Your task to perform on an android device: check data usage Image 0: 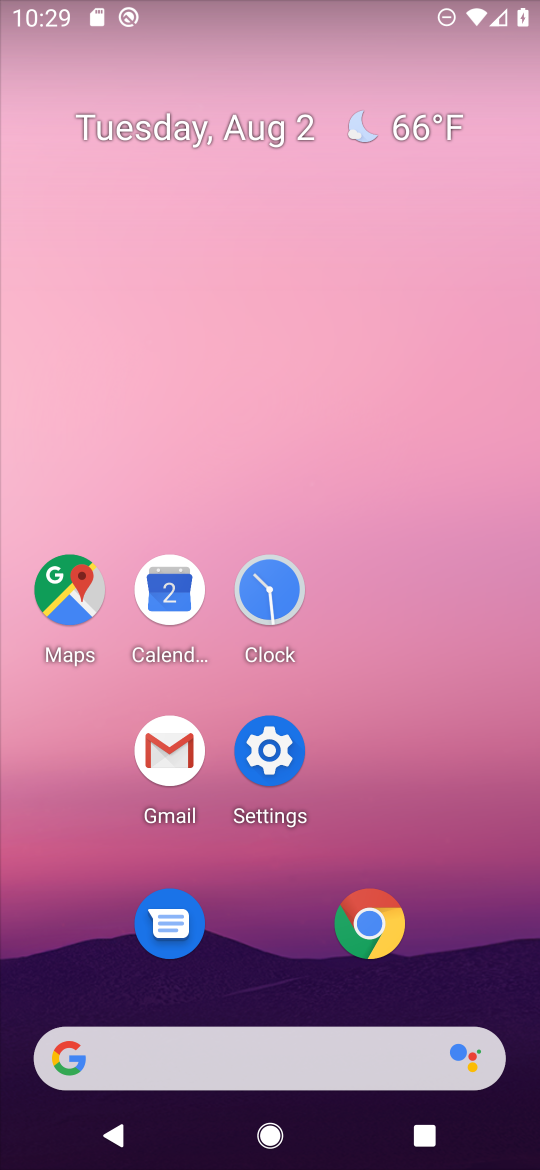
Step 0: click (256, 757)
Your task to perform on an android device: check data usage Image 1: 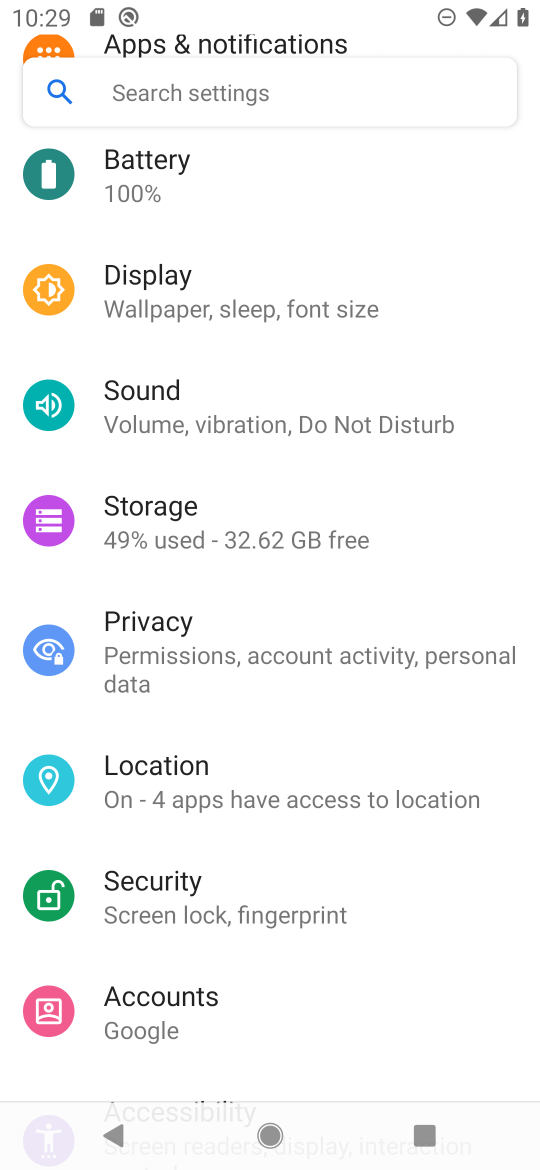
Step 1: drag from (452, 254) to (503, 795)
Your task to perform on an android device: check data usage Image 2: 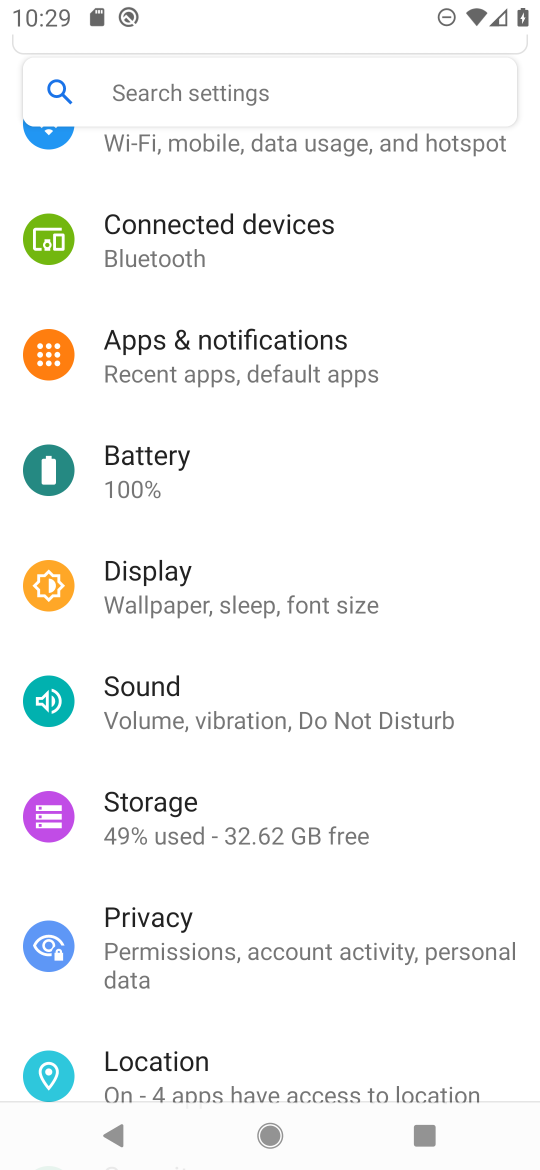
Step 2: drag from (408, 190) to (405, 935)
Your task to perform on an android device: check data usage Image 3: 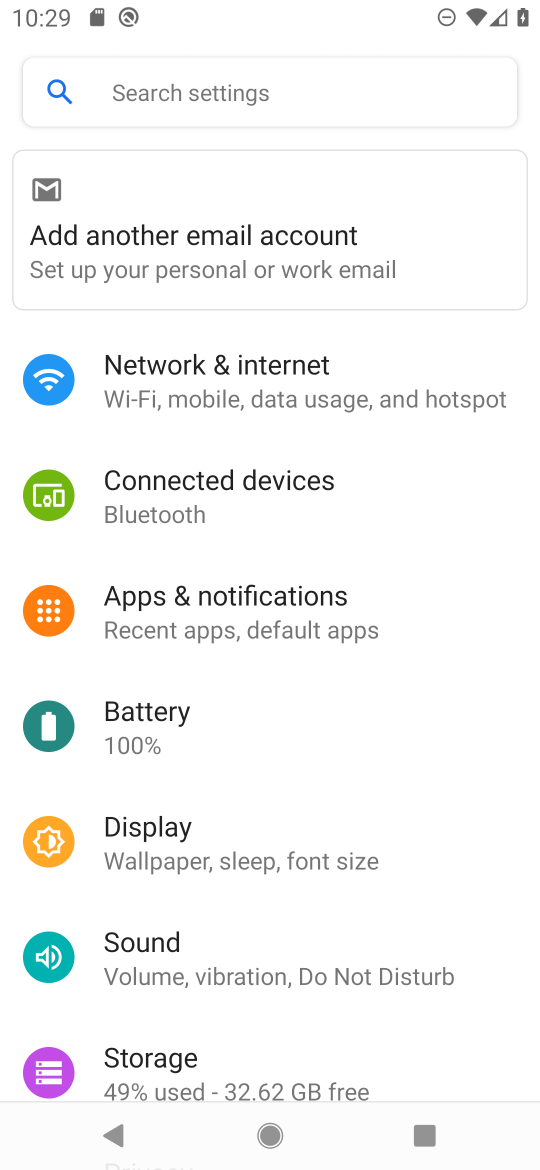
Step 3: click (210, 375)
Your task to perform on an android device: check data usage Image 4: 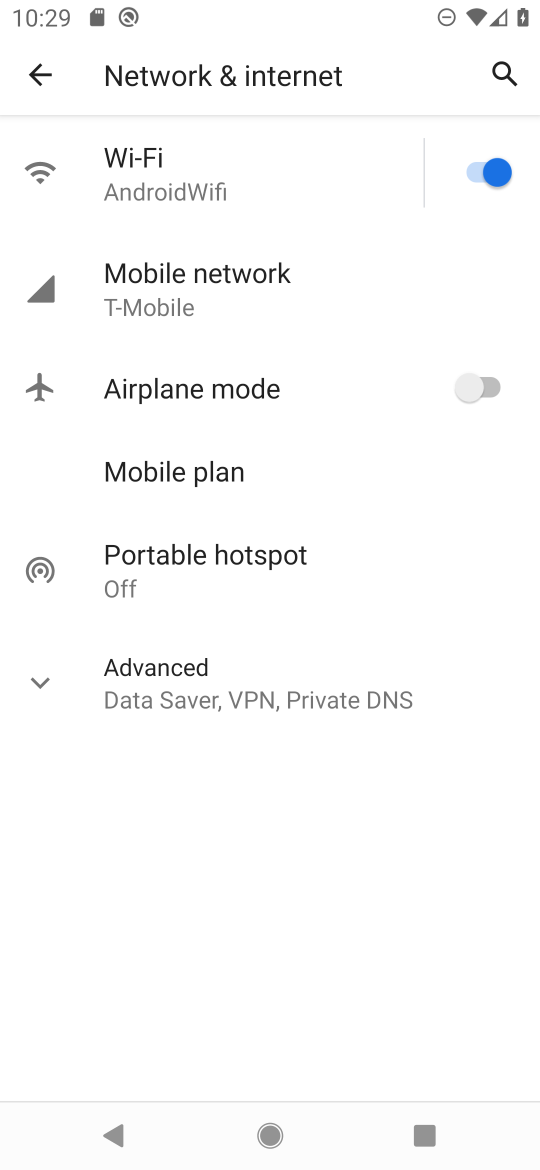
Step 4: click (46, 679)
Your task to perform on an android device: check data usage Image 5: 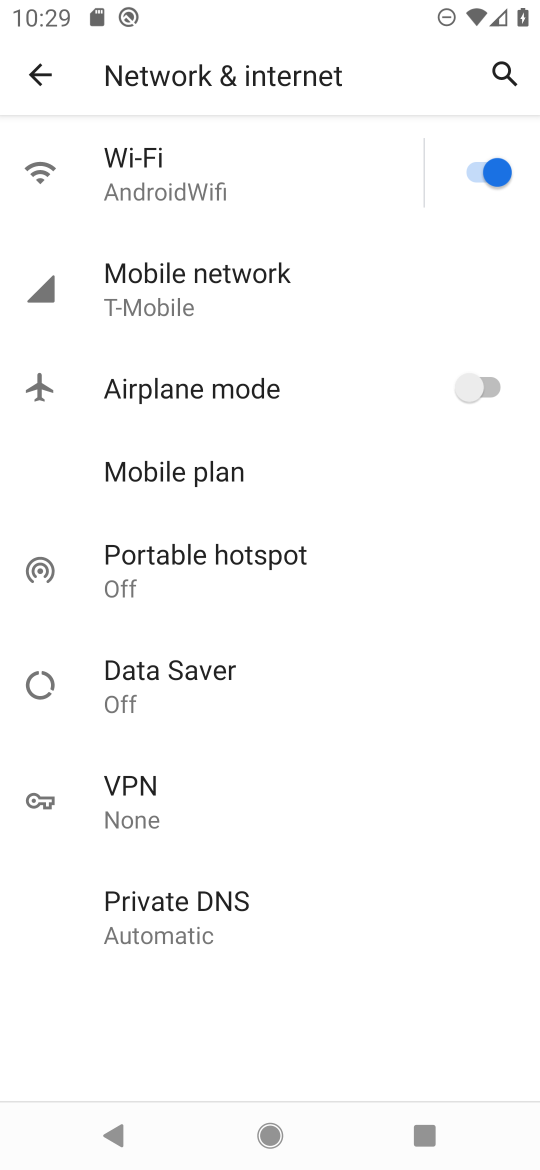
Step 5: click (204, 291)
Your task to perform on an android device: check data usage Image 6: 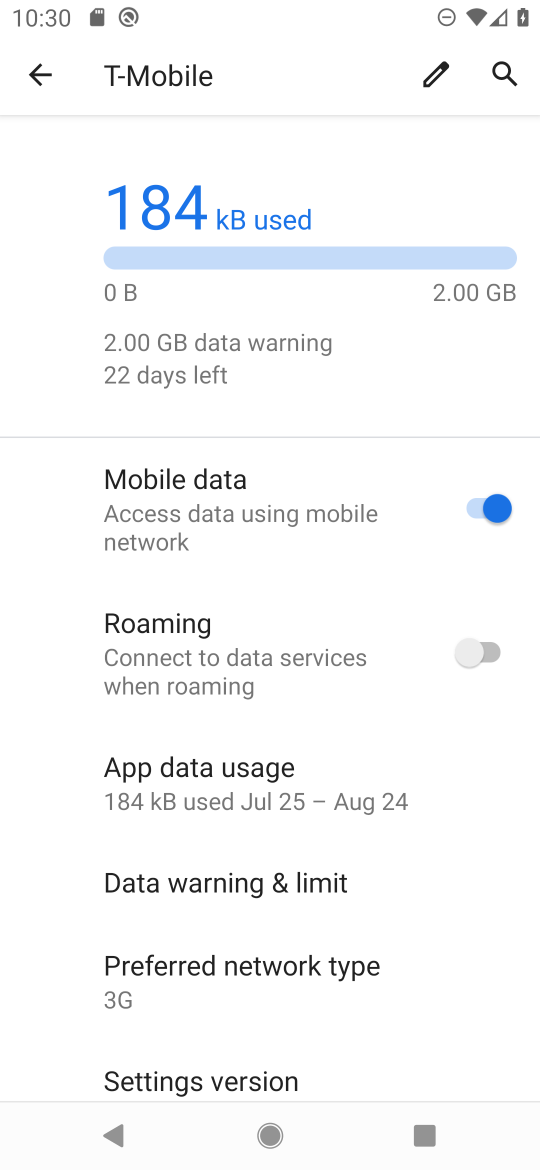
Step 6: task complete